Your task to perform on an android device: toggle pop-ups in chrome Image 0: 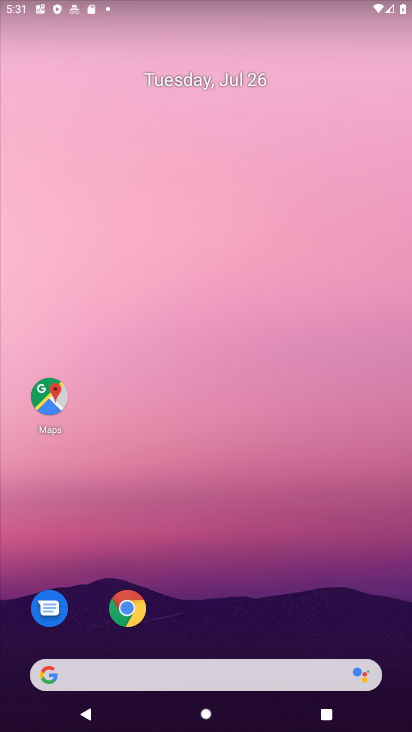
Step 0: press home button
Your task to perform on an android device: toggle pop-ups in chrome Image 1: 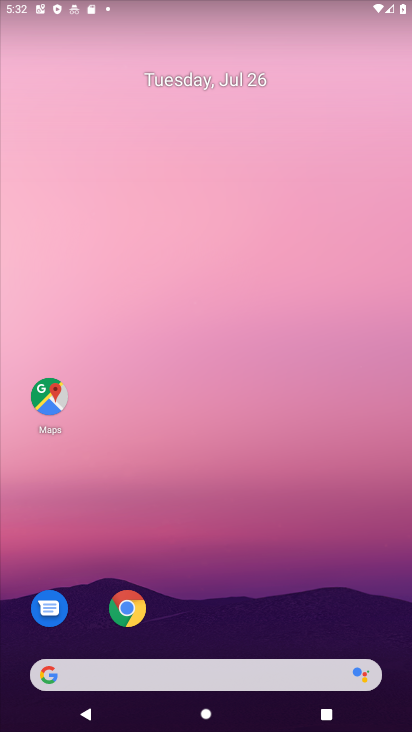
Step 1: drag from (274, 634) to (315, 35)
Your task to perform on an android device: toggle pop-ups in chrome Image 2: 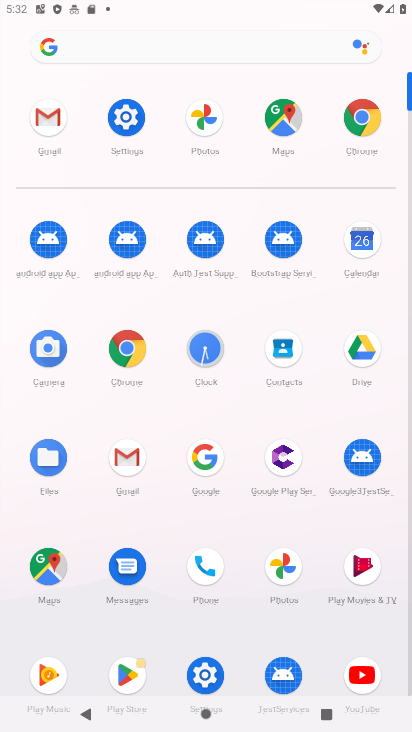
Step 2: click (351, 119)
Your task to perform on an android device: toggle pop-ups in chrome Image 3: 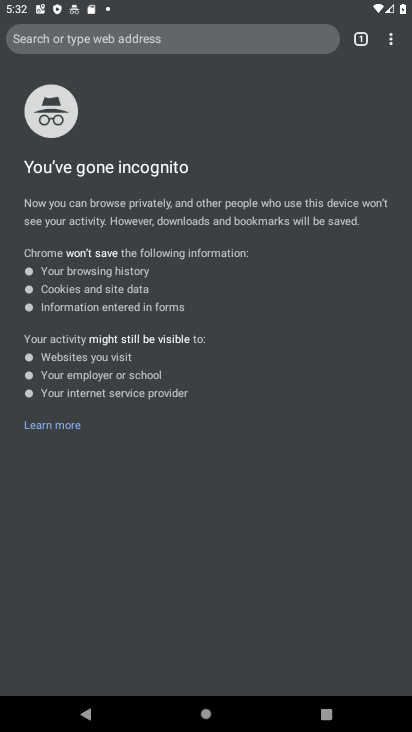
Step 3: drag from (389, 43) to (262, 299)
Your task to perform on an android device: toggle pop-ups in chrome Image 4: 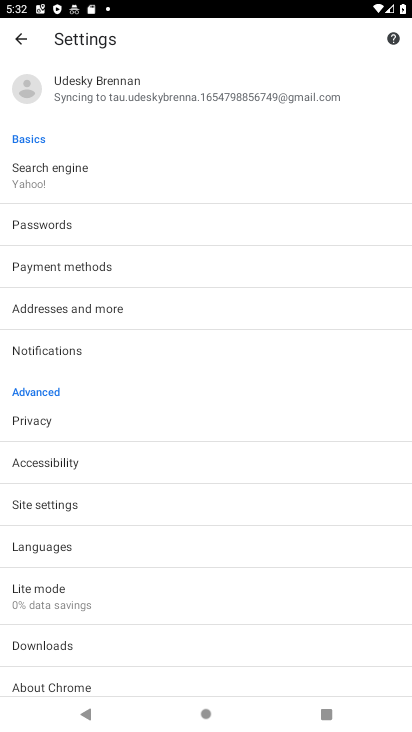
Step 4: click (18, 505)
Your task to perform on an android device: toggle pop-ups in chrome Image 5: 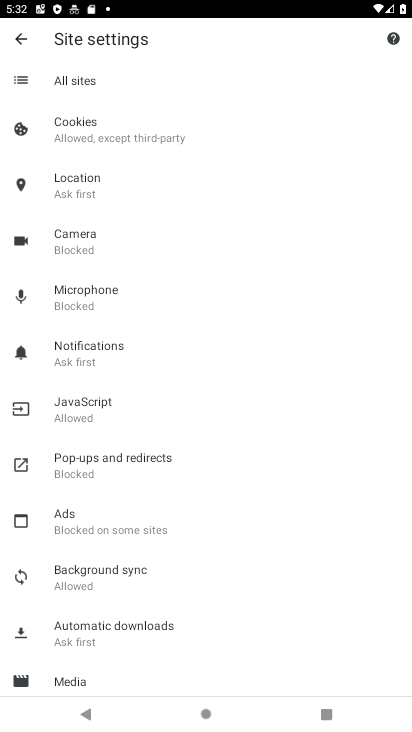
Step 5: click (72, 459)
Your task to perform on an android device: toggle pop-ups in chrome Image 6: 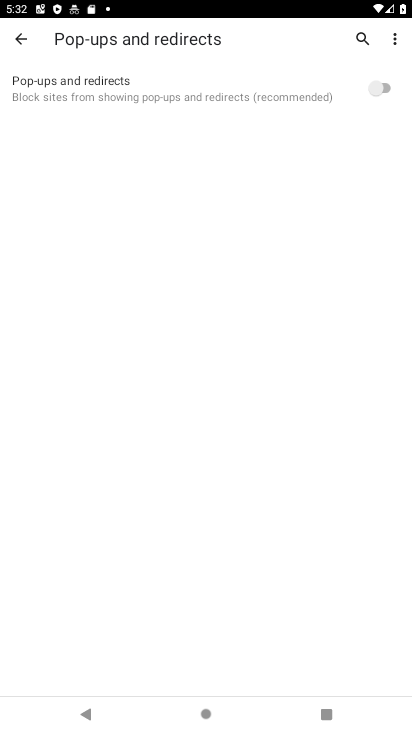
Step 6: click (379, 86)
Your task to perform on an android device: toggle pop-ups in chrome Image 7: 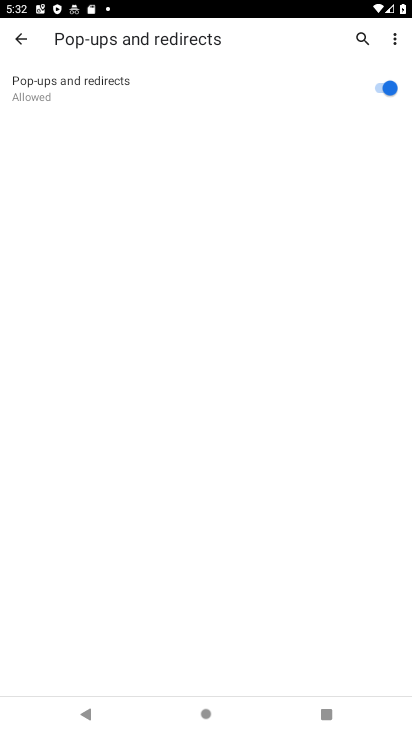
Step 7: task complete